Your task to perform on an android device: Go to Google maps Image 0: 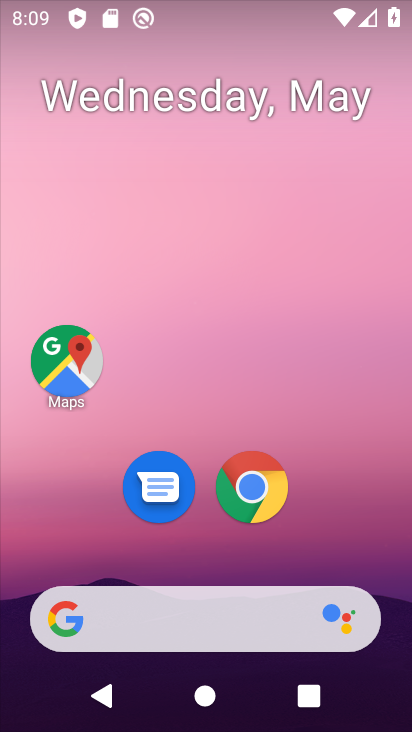
Step 0: click (69, 359)
Your task to perform on an android device: Go to Google maps Image 1: 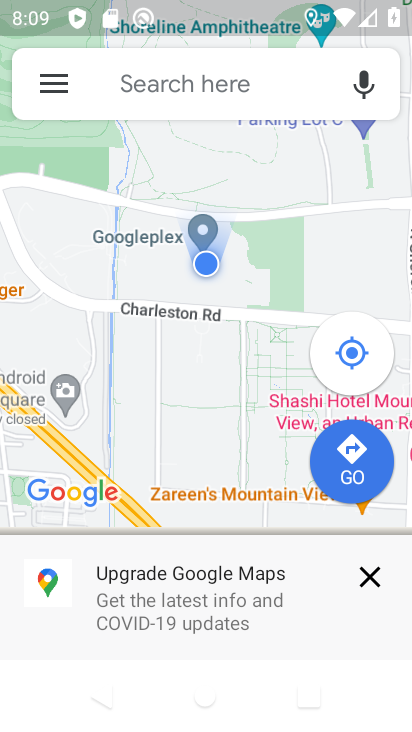
Step 1: task complete